Your task to perform on an android device: Clear the cart on amazon.com. Image 0: 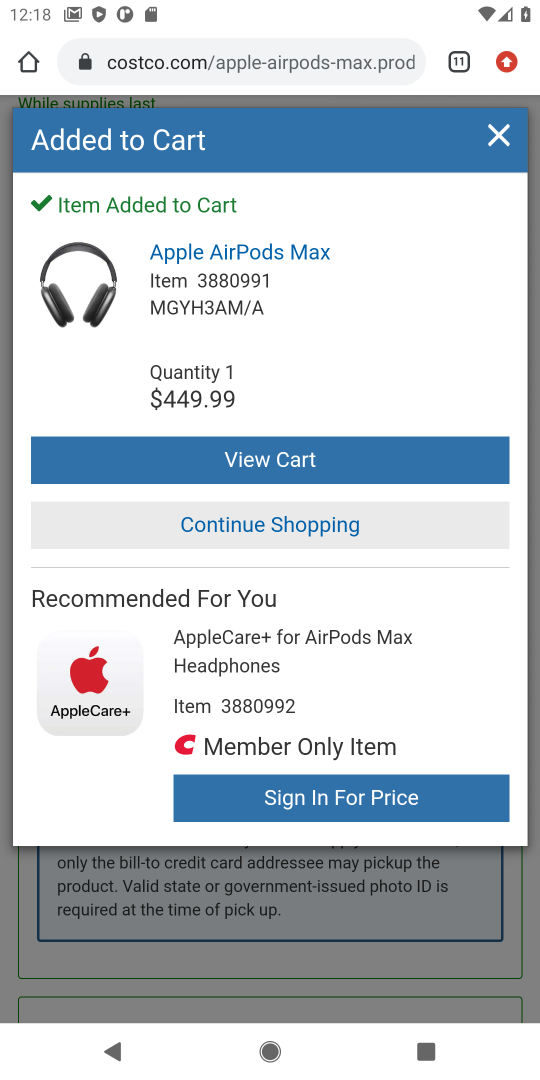
Step 0: task complete